Your task to perform on an android device: toggle wifi Image 0: 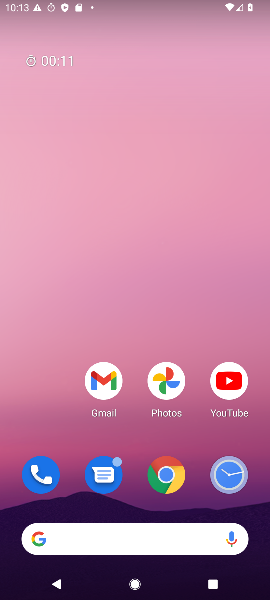
Step 0: drag from (139, 508) to (139, 121)
Your task to perform on an android device: toggle wifi Image 1: 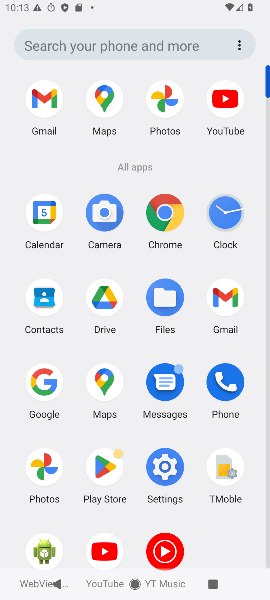
Step 1: click (161, 467)
Your task to perform on an android device: toggle wifi Image 2: 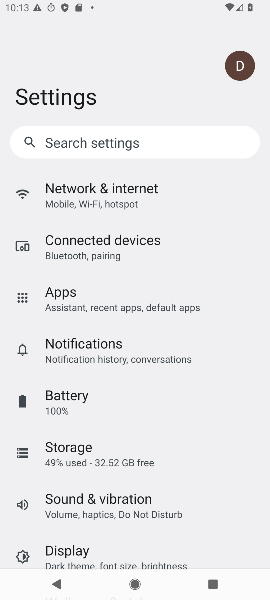
Step 2: click (110, 196)
Your task to perform on an android device: toggle wifi Image 3: 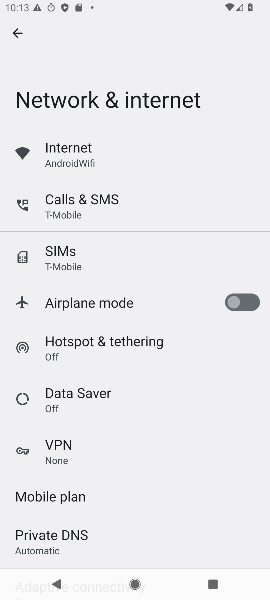
Step 3: click (80, 155)
Your task to perform on an android device: toggle wifi Image 4: 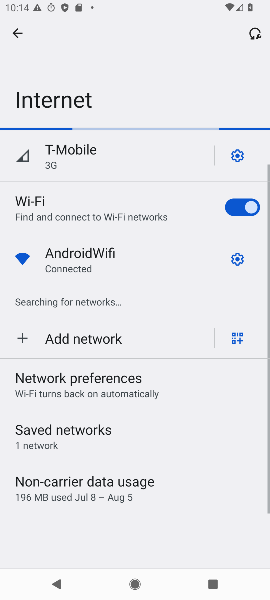
Step 4: click (220, 211)
Your task to perform on an android device: toggle wifi Image 5: 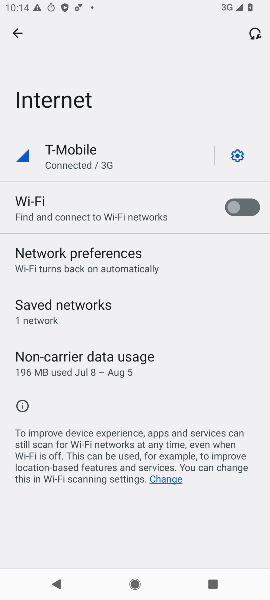
Step 5: task complete